Your task to perform on an android device: Go to Wikipedia Image 0: 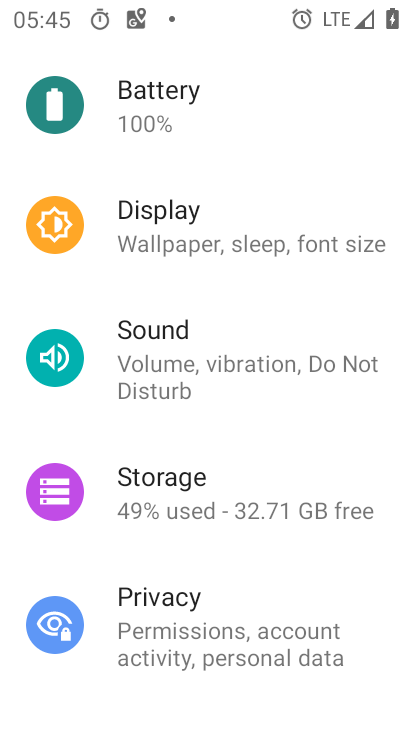
Step 0: press home button
Your task to perform on an android device: Go to Wikipedia Image 1: 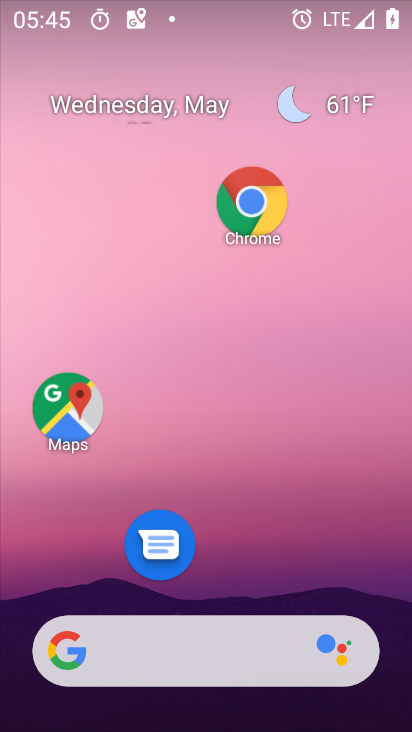
Step 1: drag from (181, 630) to (232, 260)
Your task to perform on an android device: Go to Wikipedia Image 2: 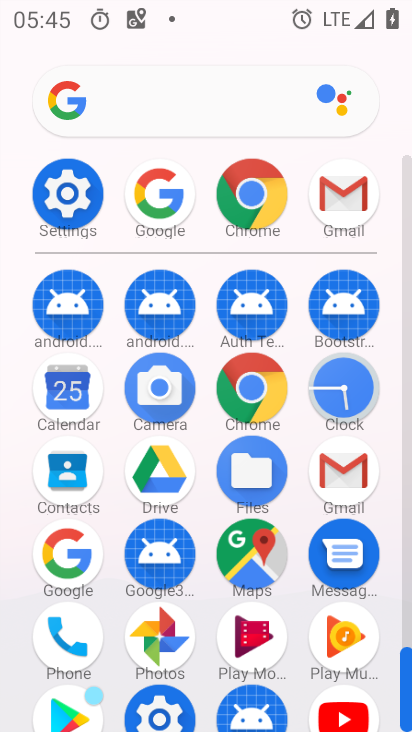
Step 2: click (245, 208)
Your task to perform on an android device: Go to Wikipedia Image 3: 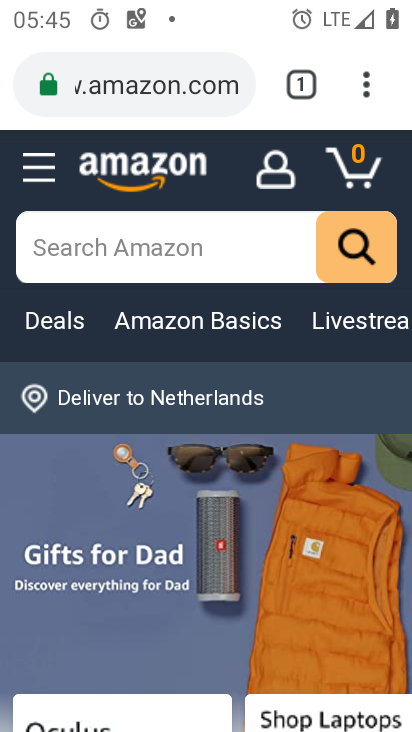
Step 3: click (296, 86)
Your task to perform on an android device: Go to Wikipedia Image 4: 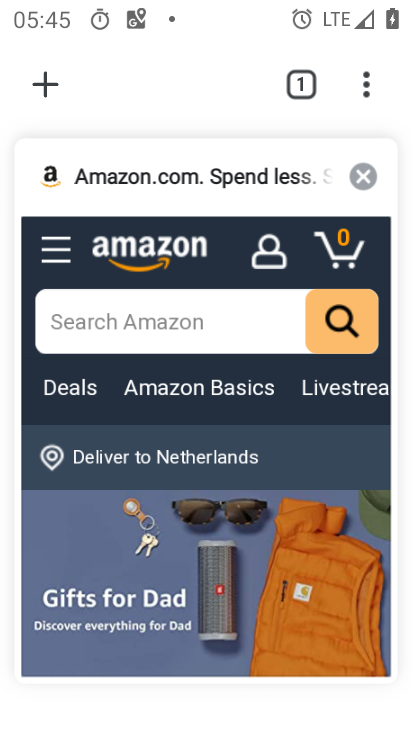
Step 4: click (360, 183)
Your task to perform on an android device: Go to Wikipedia Image 5: 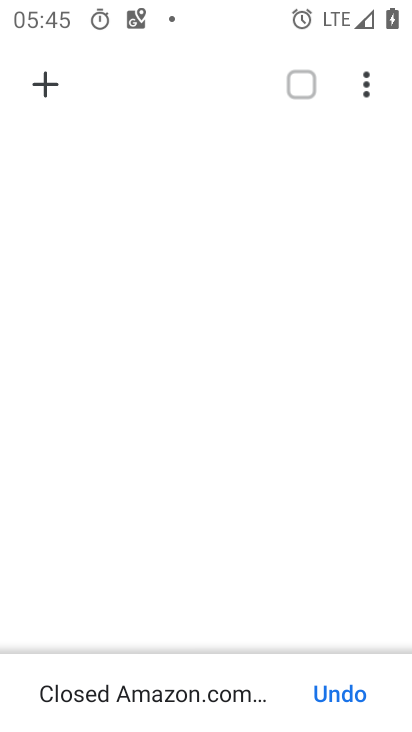
Step 5: click (41, 79)
Your task to perform on an android device: Go to Wikipedia Image 6: 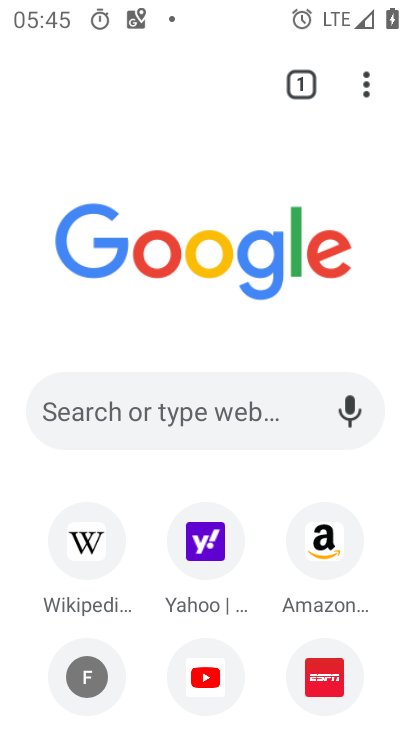
Step 6: click (63, 550)
Your task to perform on an android device: Go to Wikipedia Image 7: 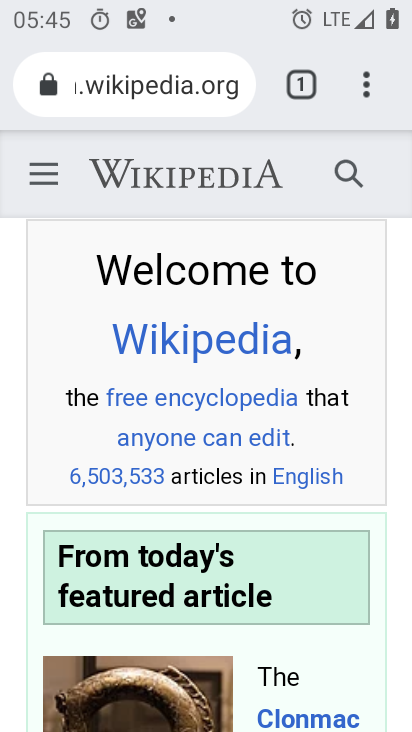
Step 7: task complete